Your task to perform on an android device: turn pop-ups off in chrome Image 0: 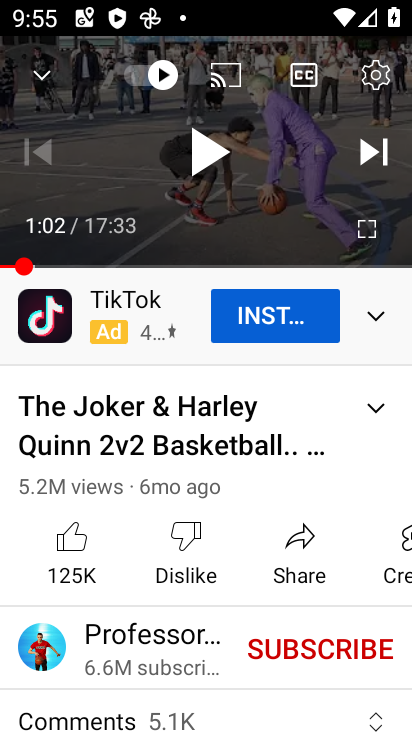
Step 0: press home button
Your task to perform on an android device: turn pop-ups off in chrome Image 1: 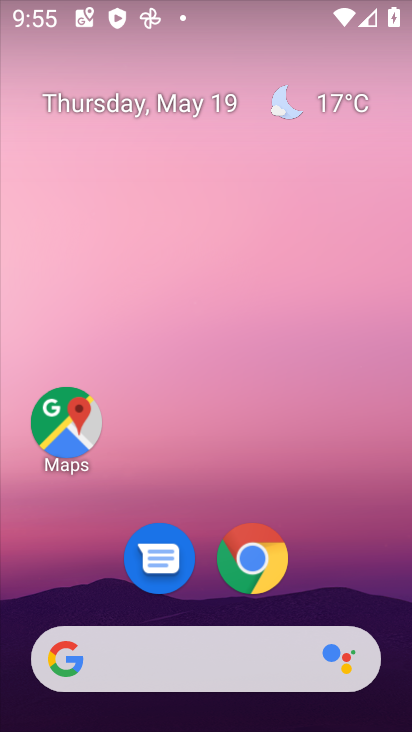
Step 1: click (258, 556)
Your task to perform on an android device: turn pop-ups off in chrome Image 2: 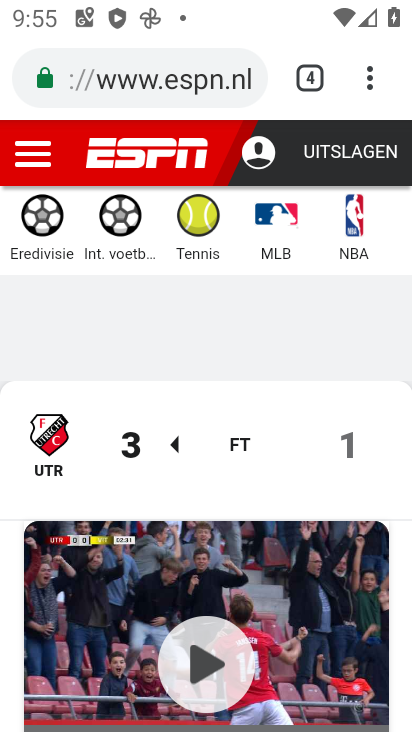
Step 2: click (369, 80)
Your task to perform on an android device: turn pop-ups off in chrome Image 3: 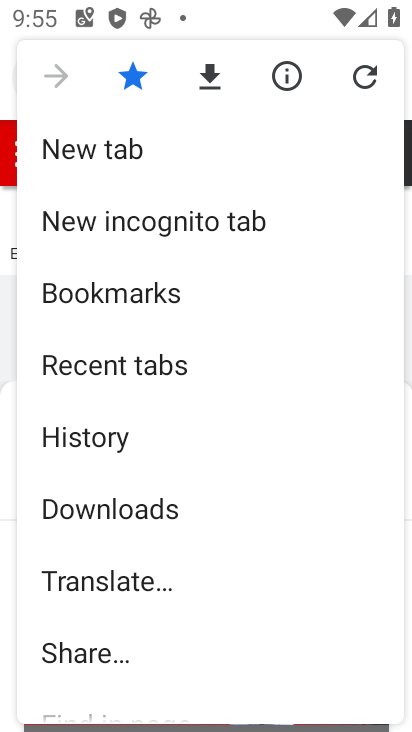
Step 3: drag from (139, 665) to (150, 199)
Your task to perform on an android device: turn pop-ups off in chrome Image 4: 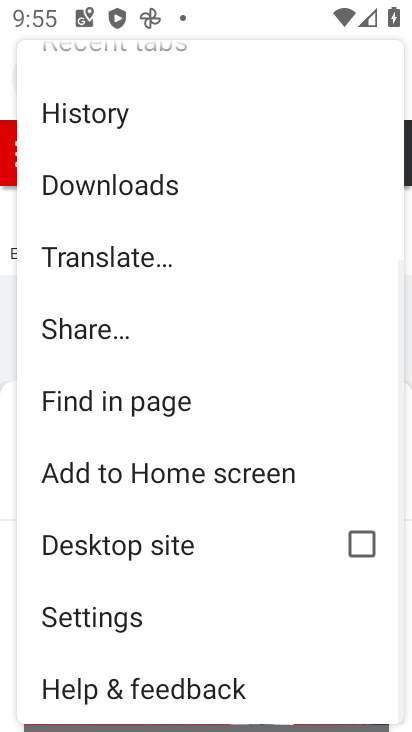
Step 4: click (107, 614)
Your task to perform on an android device: turn pop-ups off in chrome Image 5: 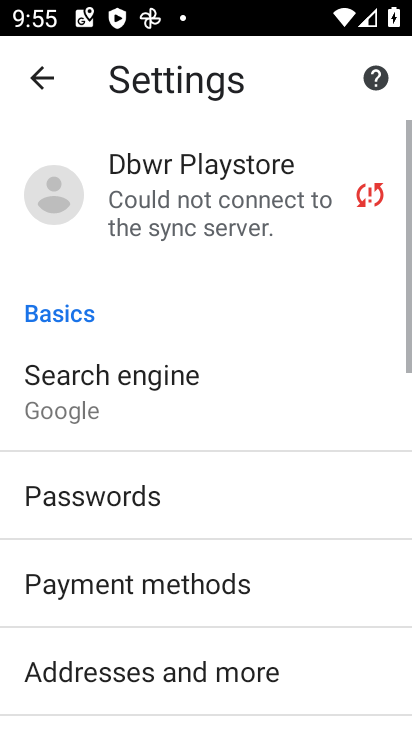
Step 5: drag from (186, 659) to (200, 253)
Your task to perform on an android device: turn pop-ups off in chrome Image 6: 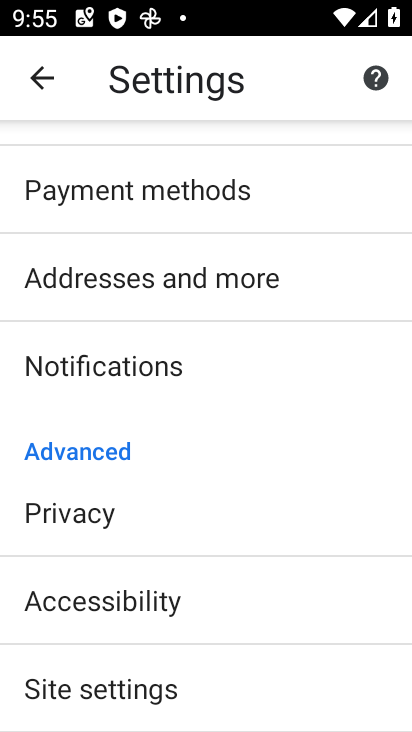
Step 6: drag from (185, 643) to (192, 378)
Your task to perform on an android device: turn pop-ups off in chrome Image 7: 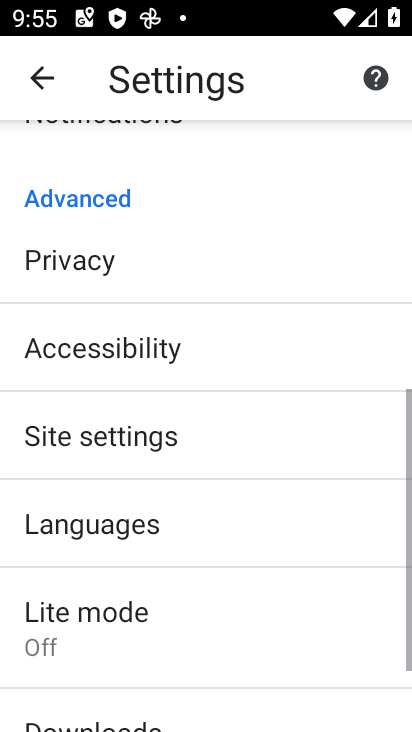
Step 7: click (117, 435)
Your task to perform on an android device: turn pop-ups off in chrome Image 8: 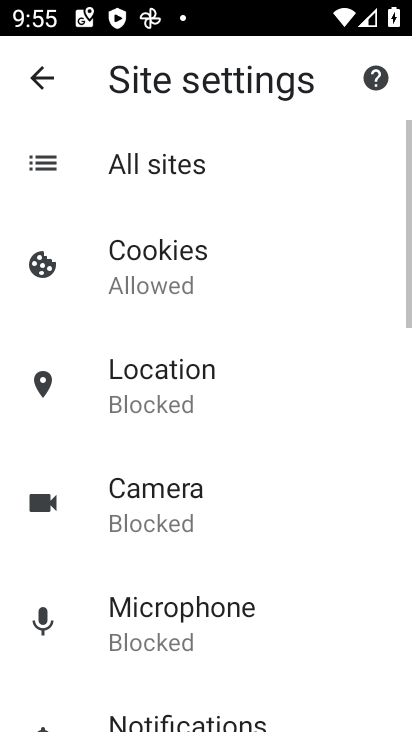
Step 8: drag from (168, 669) to (169, 249)
Your task to perform on an android device: turn pop-ups off in chrome Image 9: 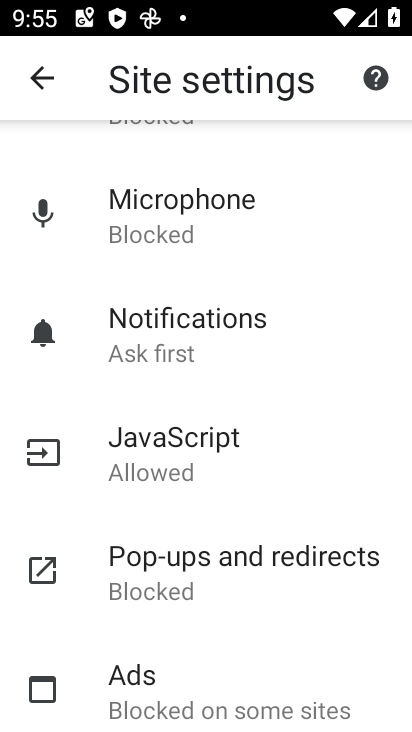
Step 9: click (180, 550)
Your task to perform on an android device: turn pop-ups off in chrome Image 10: 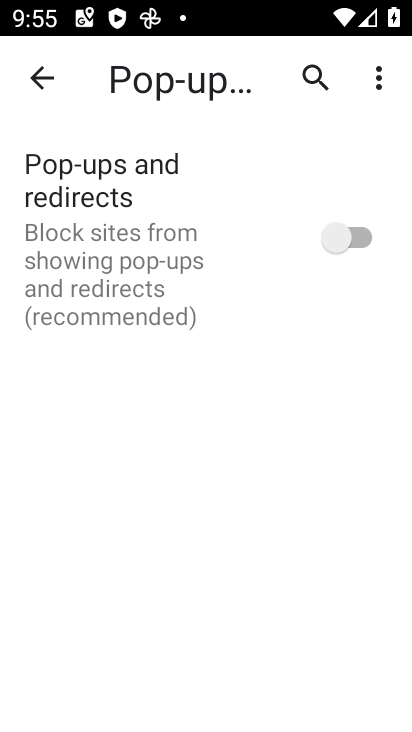
Step 10: task complete